Your task to perform on an android device: Open Youtube and go to the subscriptions tab Image 0: 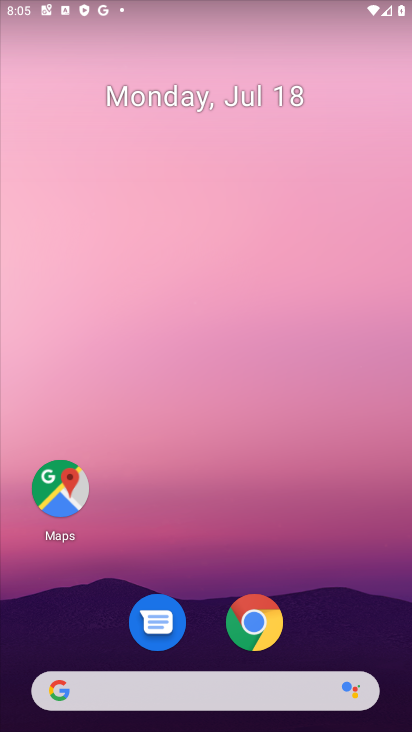
Step 0: drag from (311, 644) to (298, 298)
Your task to perform on an android device: Open Youtube and go to the subscriptions tab Image 1: 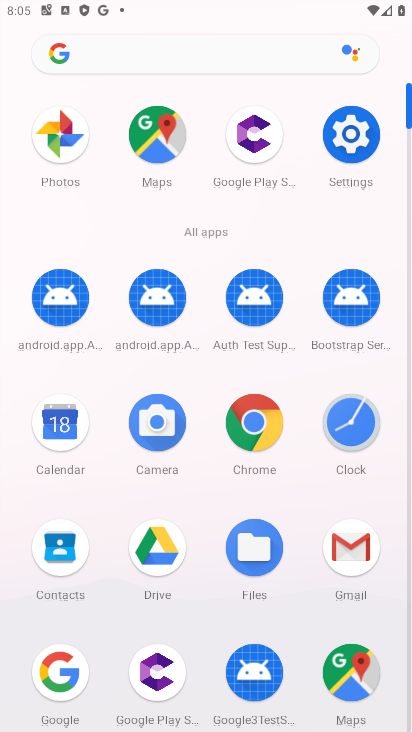
Step 1: drag from (284, 561) to (347, 183)
Your task to perform on an android device: Open Youtube and go to the subscriptions tab Image 2: 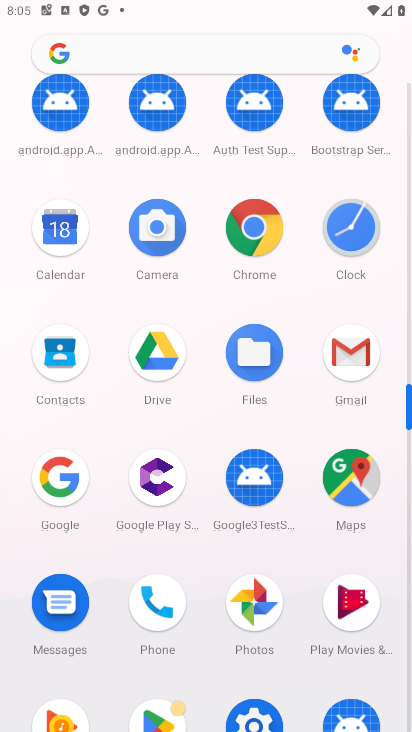
Step 2: drag from (249, 555) to (306, 153)
Your task to perform on an android device: Open Youtube and go to the subscriptions tab Image 3: 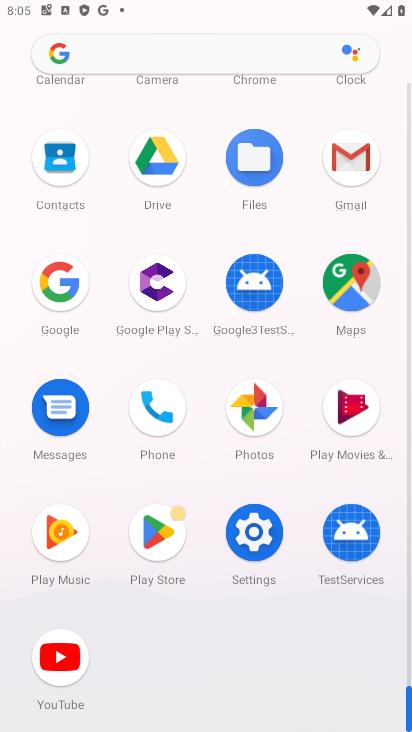
Step 3: click (58, 673)
Your task to perform on an android device: Open Youtube and go to the subscriptions tab Image 4: 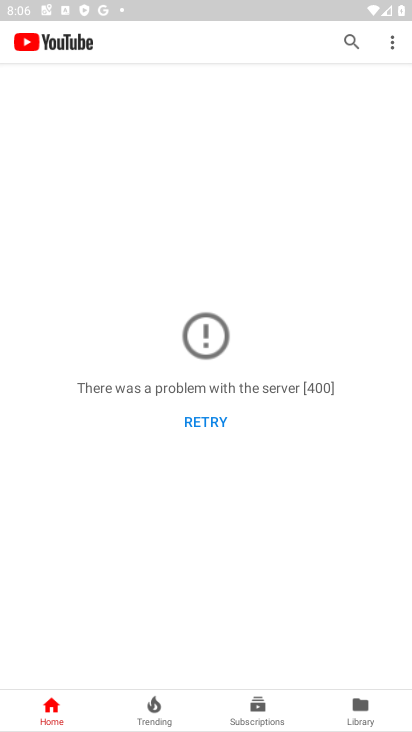
Step 4: click (261, 707)
Your task to perform on an android device: Open Youtube and go to the subscriptions tab Image 5: 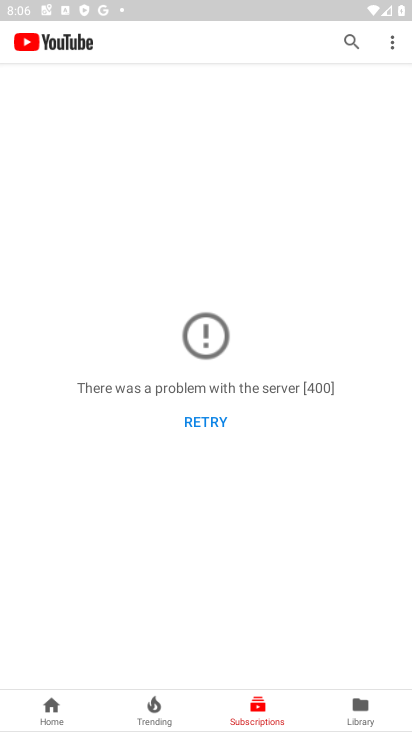
Step 5: task complete